Your task to perform on an android device: toggle notifications settings in the gmail app Image 0: 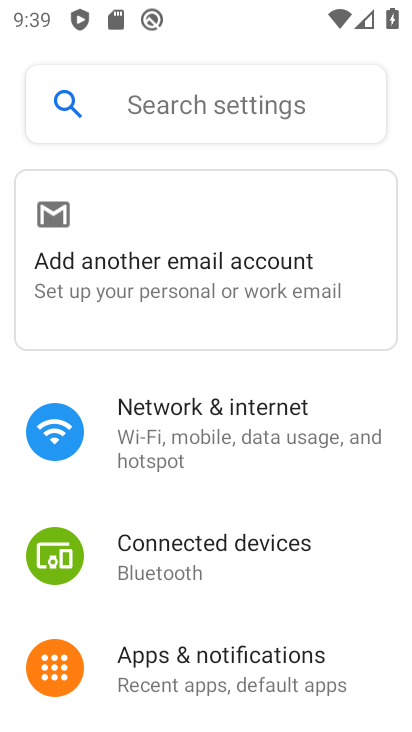
Step 0: task complete